Your task to perform on an android device: open app "Google Docs" (install if not already installed) Image 0: 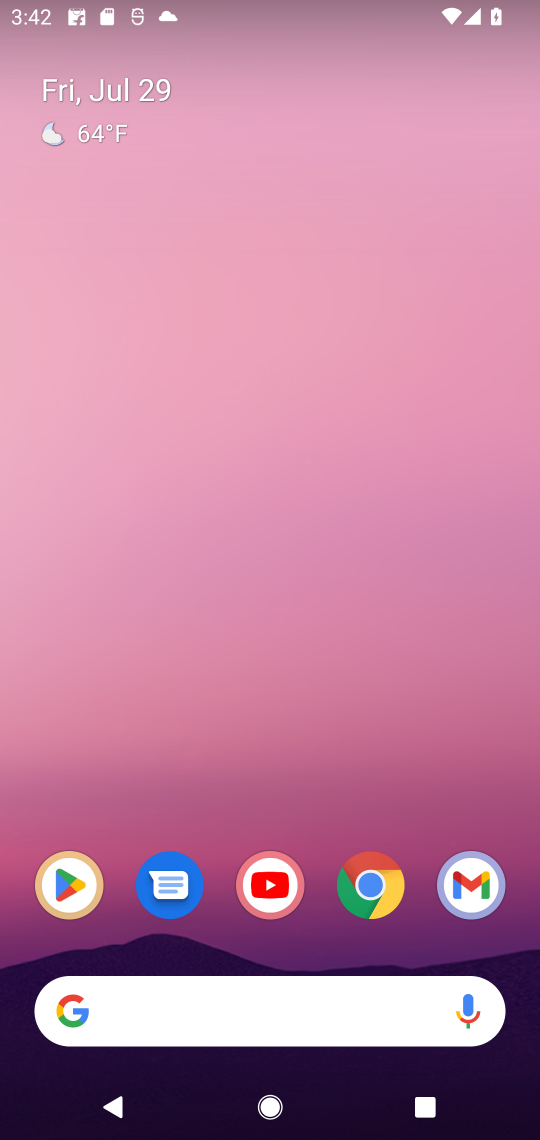
Step 0: click (68, 897)
Your task to perform on an android device: open app "Google Docs" (install if not already installed) Image 1: 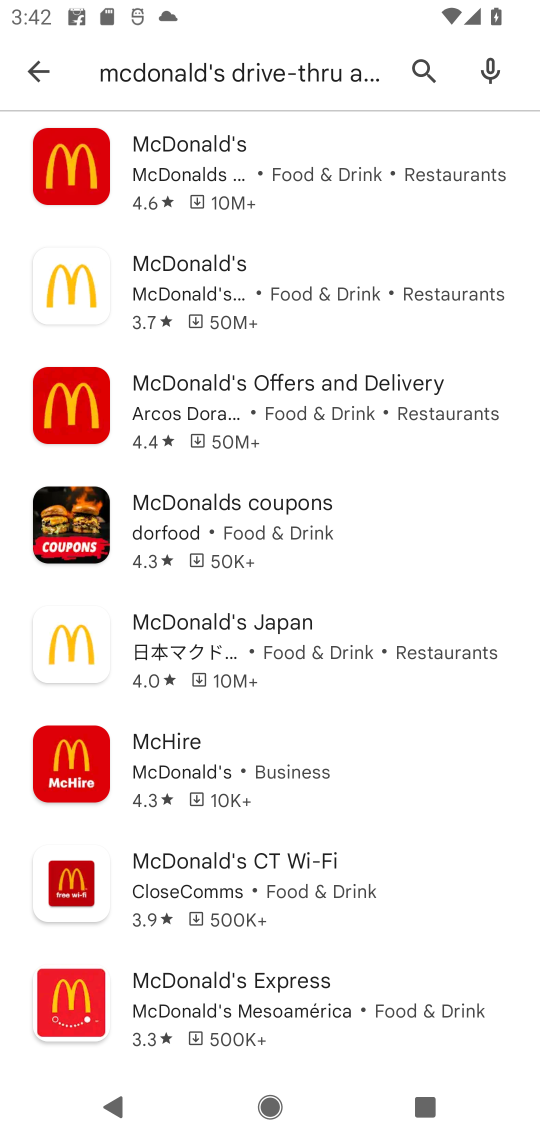
Step 1: click (425, 76)
Your task to perform on an android device: open app "Google Docs" (install if not already installed) Image 2: 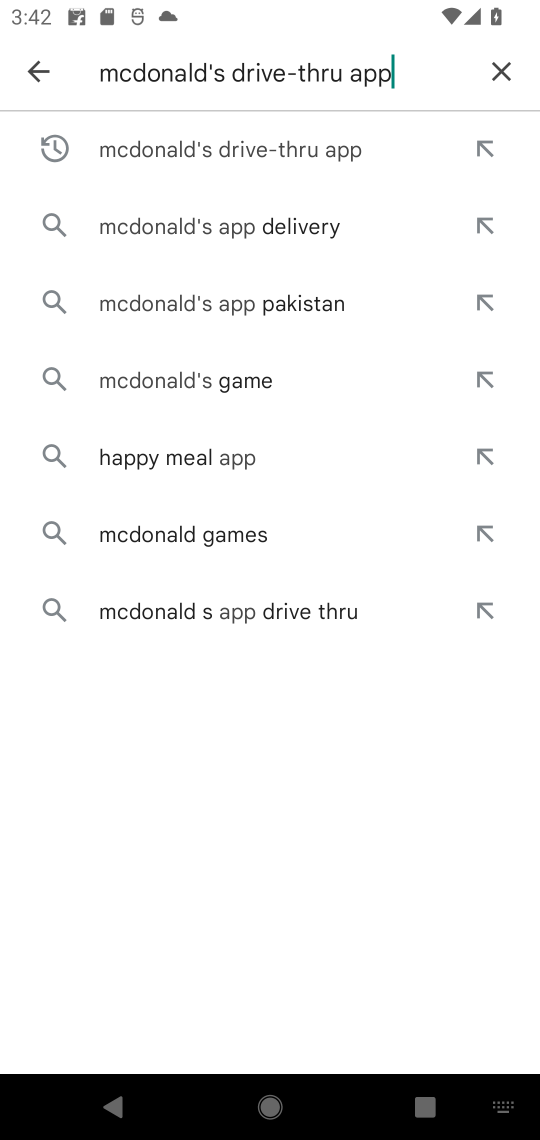
Step 2: click (504, 74)
Your task to perform on an android device: open app "Google Docs" (install if not already installed) Image 3: 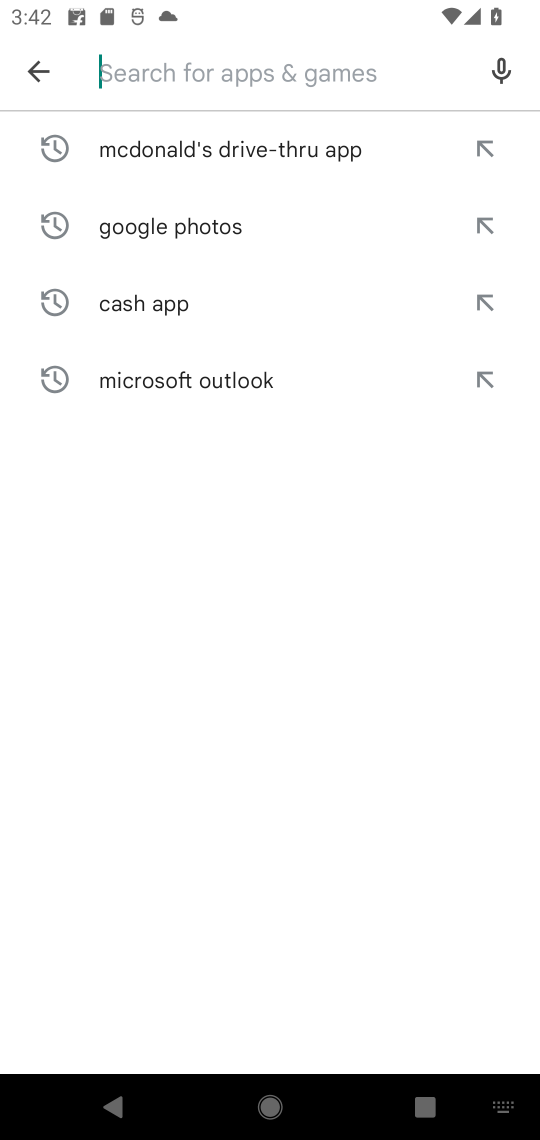
Step 3: type "Google Docs"
Your task to perform on an android device: open app "Google Docs" (install if not already installed) Image 4: 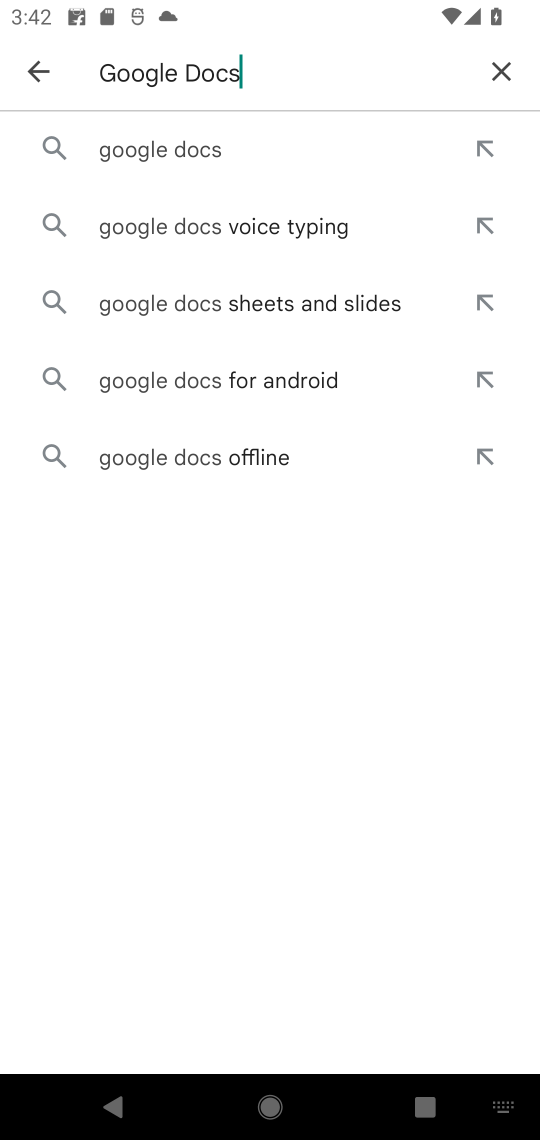
Step 4: click (271, 161)
Your task to perform on an android device: open app "Google Docs" (install if not already installed) Image 5: 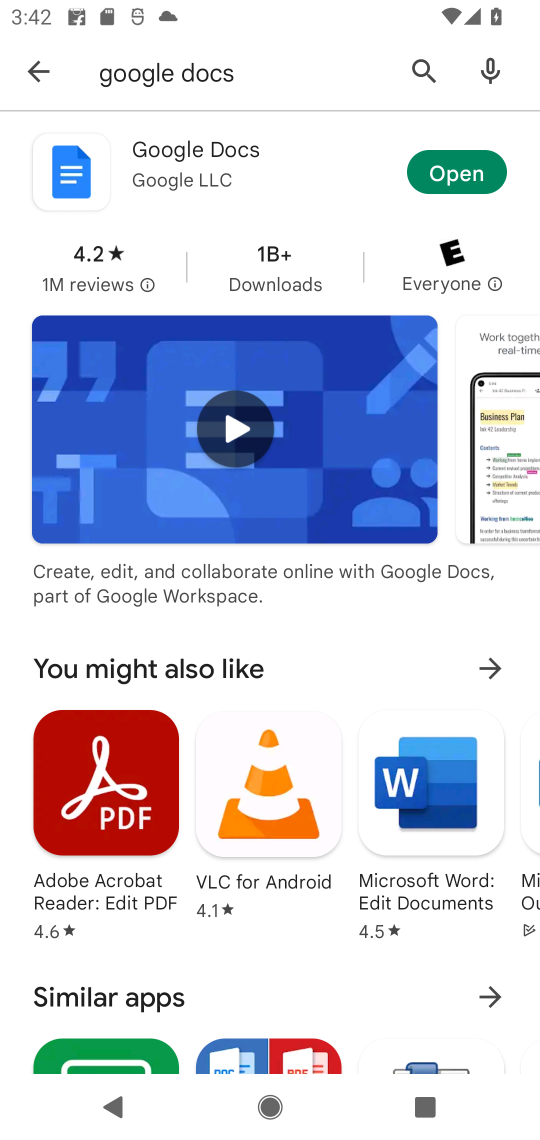
Step 5: click (439, 188)
Your task to perform on an android device: open app "Google Docs" (install if not already installed) Image 6: 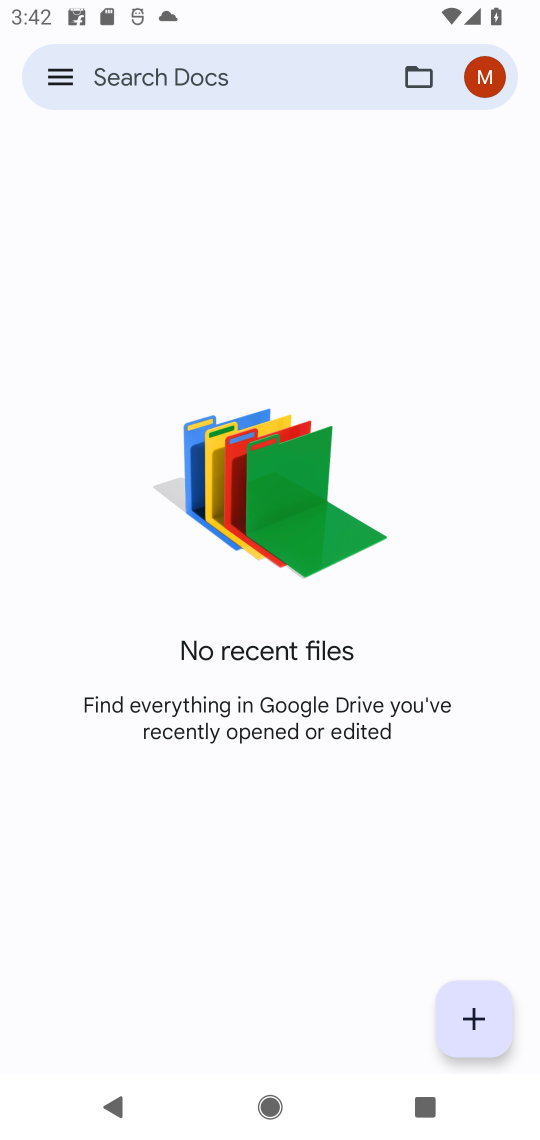
Step 6: task complete